Your task to perform on an android device: Do I have any events tomorrow? Image 0: 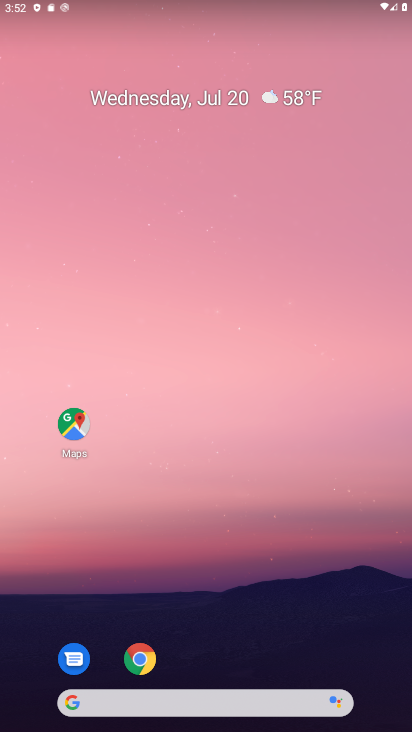
Step 0: drag from (296, 225) to (296, 41)
Your task to perform on an android device: Do I have any events tomorrow? Image 1: 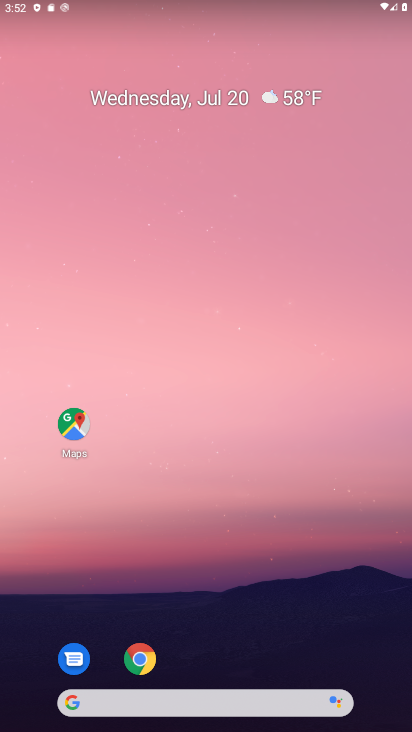
Step 1: drag from (220, 573) to (209, 169)
Your task to perform on an android device: Do I have any events tomorrow? Image 2: 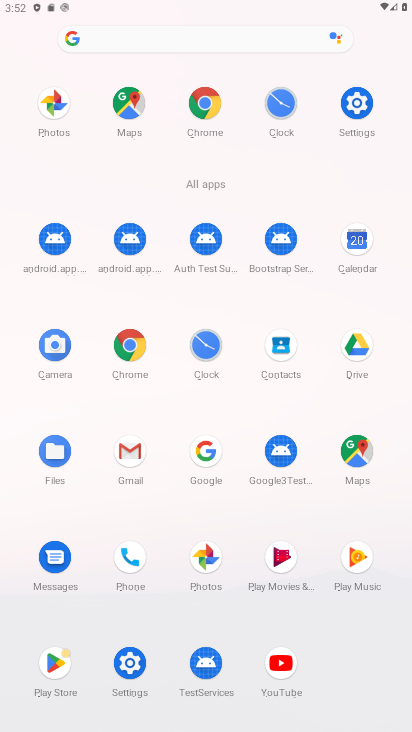
Step 2: drag from (142, 238) to (143, 121)
Your task to perform on an android device: Do I have any events tomorrow? Image 3: 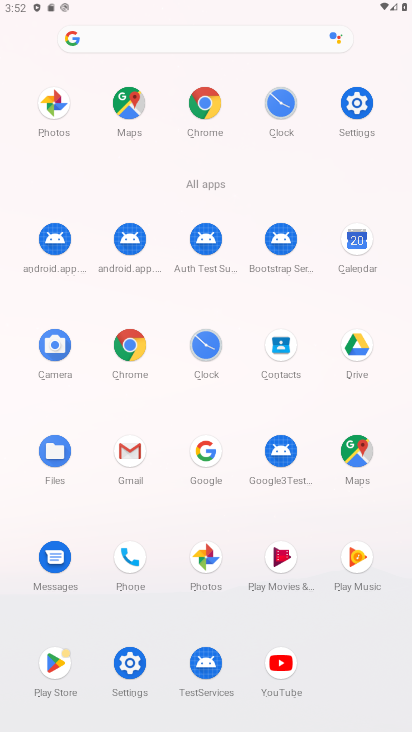
Step 3: click (347, 243)
Your task to perform on an android device: Do I have any events tomorrow? Image 4: 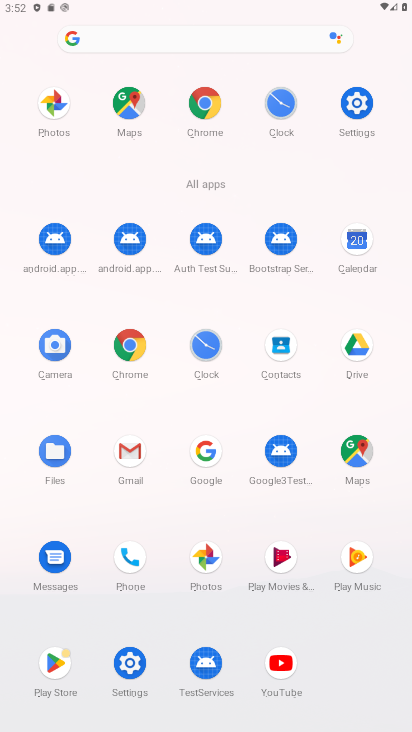
Step 4: click (346, 244)
Your task to perform on an android device: Do I have any events tomorrow? Image 5: 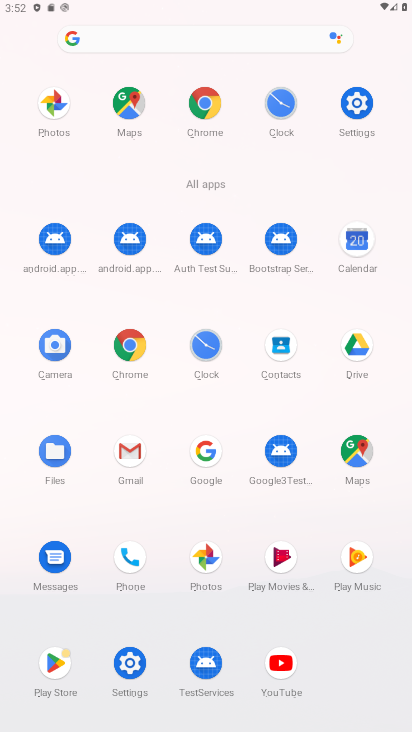
Step 5: click (346, 244)
Your task to perform on an android device: Do I have any events tomorrow? Image 6: 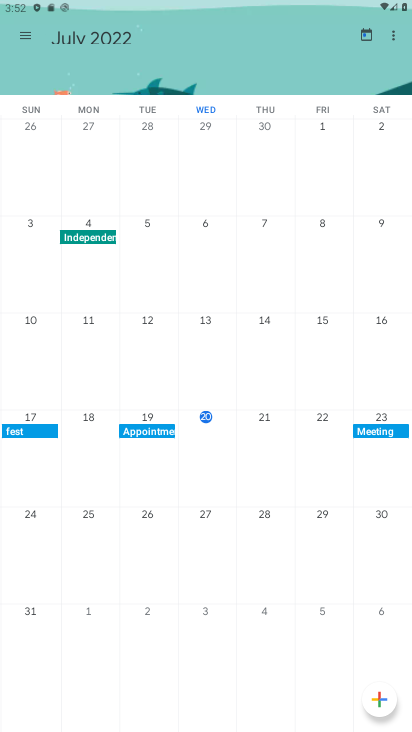
Step 6: click (266, 411)
Your task to perform on an android device: Do I have any events tomorrow? Image 7: 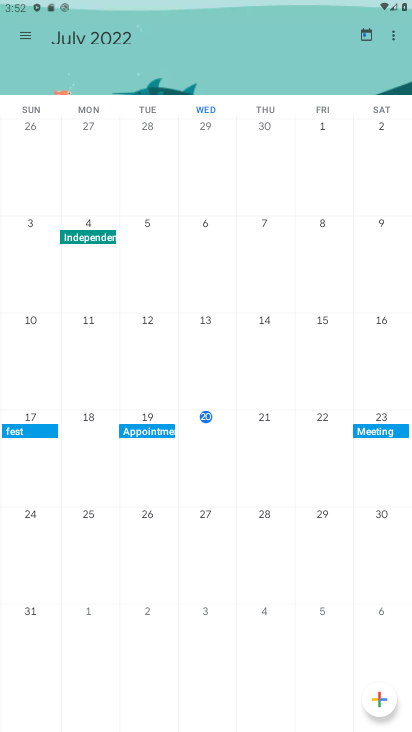
Step 7: click (266, 411)
Your task to perform on an android device: Do I have any events tomorrow? Image 8: 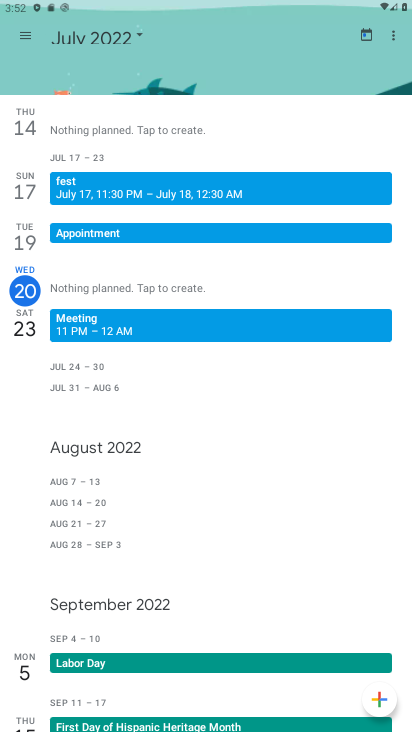
Step 8: click (266, 413)
Your task to perform on an android device: Do I have any events tomorrow? Image 9: 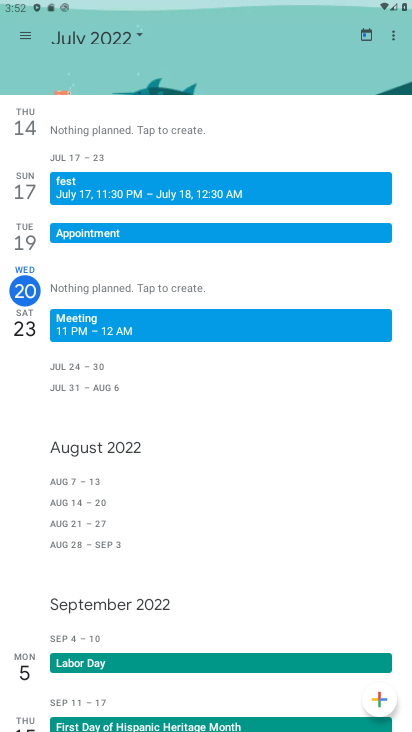
Step 9: click (273, 417)
Your task to perform on an android device: Do I have any events tomorrow? Image 10: 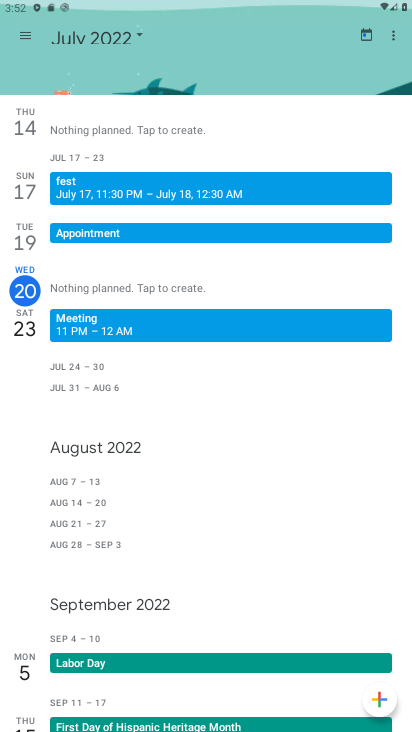
Step 10: task complete